Your task to perform on an android device: turn off improve location accuracy Image 0: 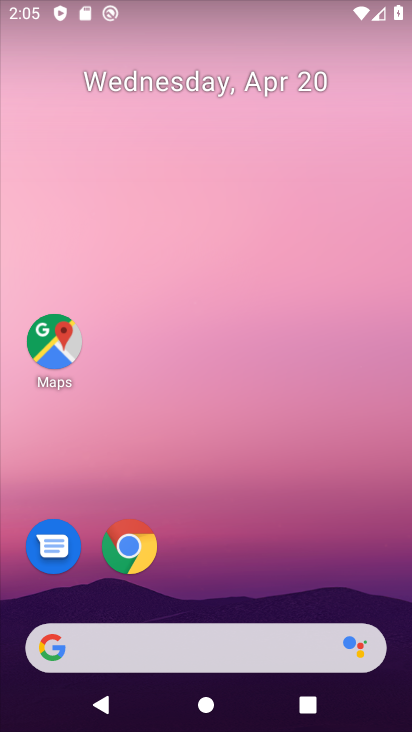
Step 0: drag from (215, 465) to (364, 44)
Your task to perform on an android device: turn off improve location accuracy Image 1: 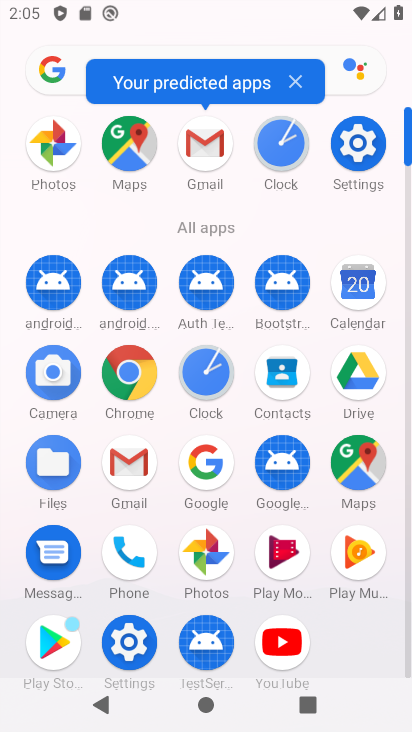
Step 1: click (122, 662)
Your task to perform on an android device: turn off improve location accuracy Image 2: 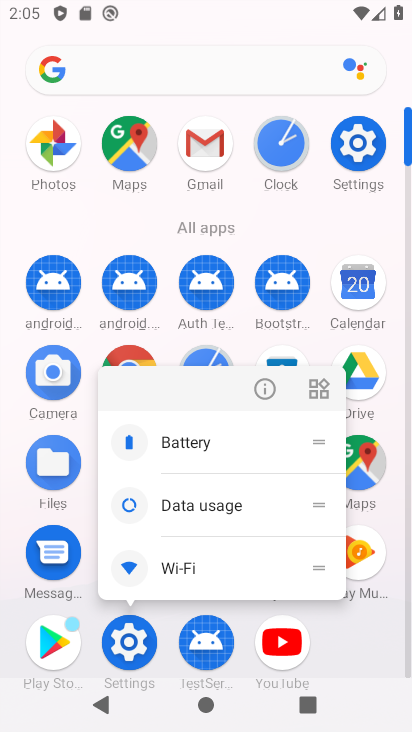
Step 2: click (134, 642)
Your task to perform on an android device: turn off improve location accuracy Image 3: 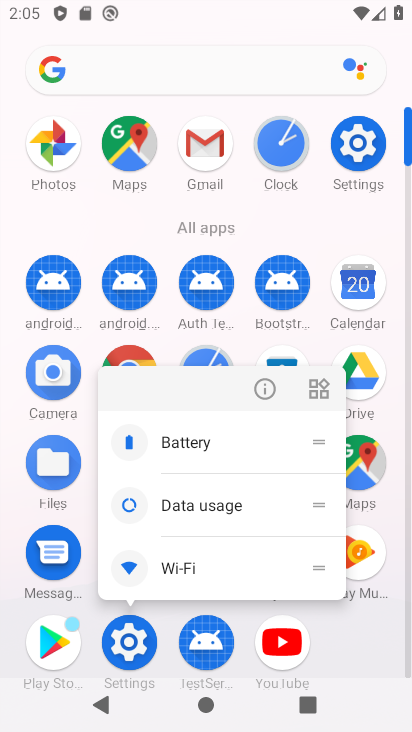
Step 3: click (134, 642)
Your task to perform on an android device: turn off improve location accuracy Image 4: 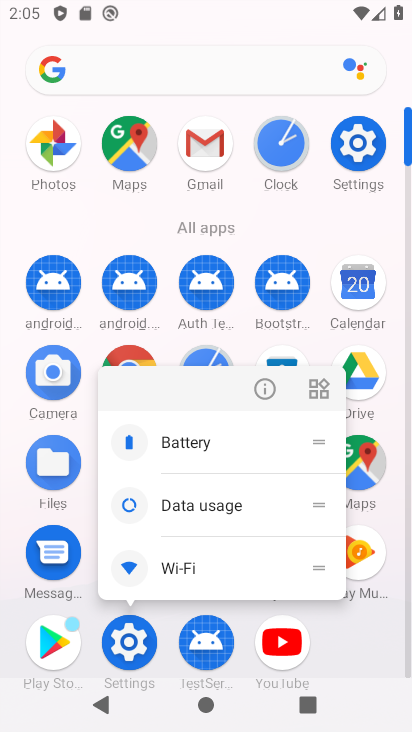
Step 4: click (134, 642)
Your task to perform on an android device: turn off improve location accuracy Image 5: 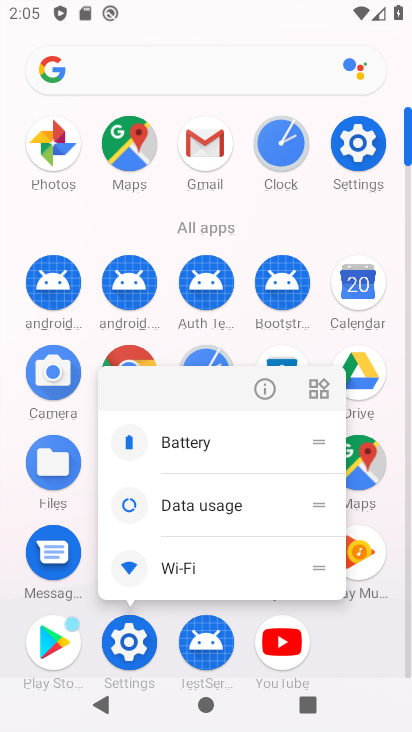
Step 5: click (138, 642)
Your task to perform on an android device: turn off improve location accuracy Image 6: 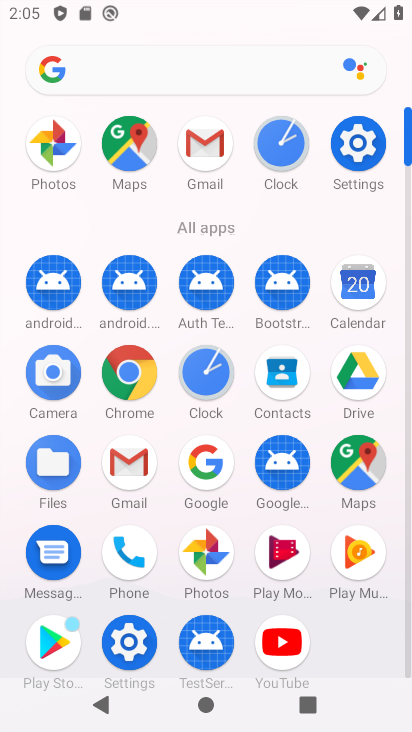
Step 6: click (126, 646)
Your task to perform on an android device: turn off improve location accuracy Image 7: 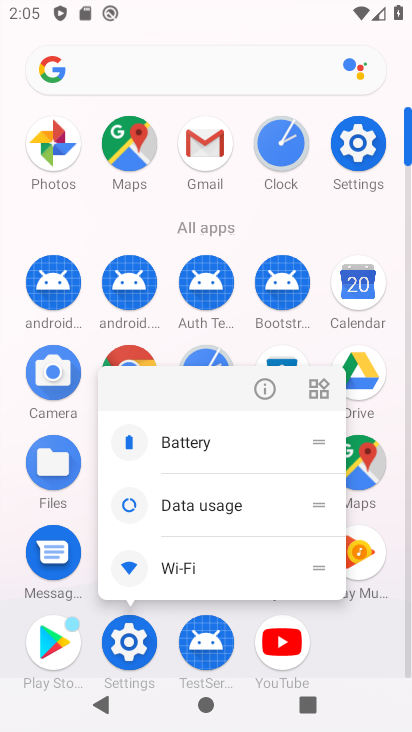
Step 7: click (126, 646)
Your task to perform on an android device: turn off improve location accuracy Image 8: 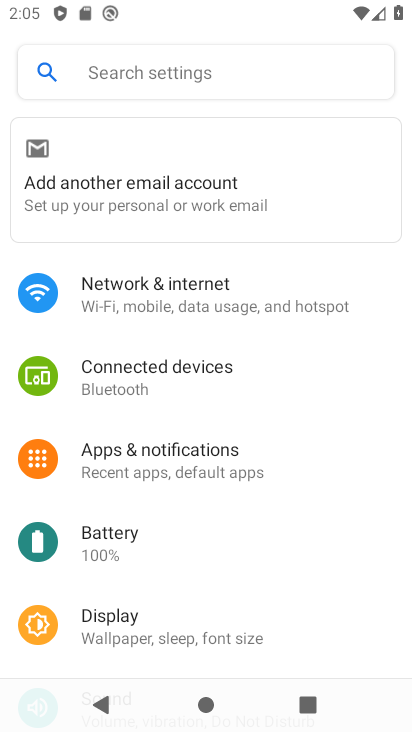
Step 8: drag from (190, 589) to (367, 83)
Your task to perform on an android device: turn off improve location accuracy Image 9: 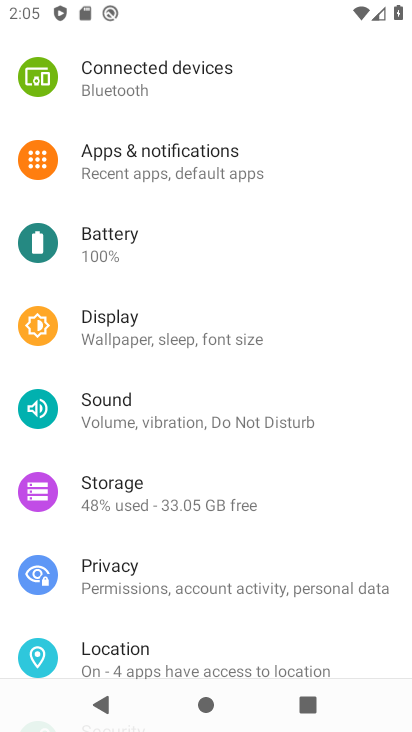
Step 9: drag from (186, 565) to (293, 303)
Your task to perform on an android device: turn off improve location accuracy Image 10: 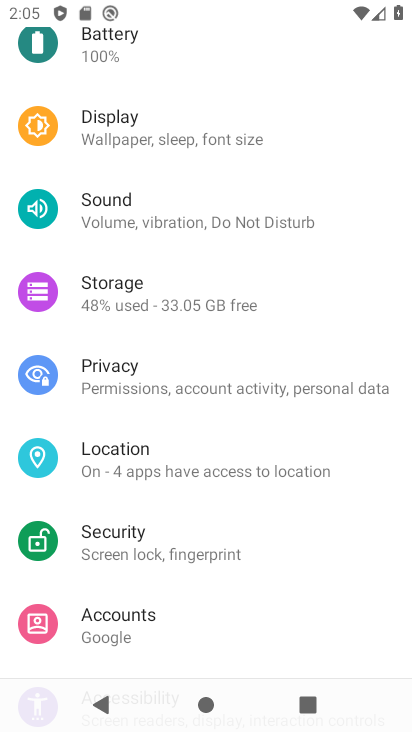
Step 10: drag from (132, 640) to (242, 339)
Your task to perform on an android device: turn off improve location accuracy Image 11: 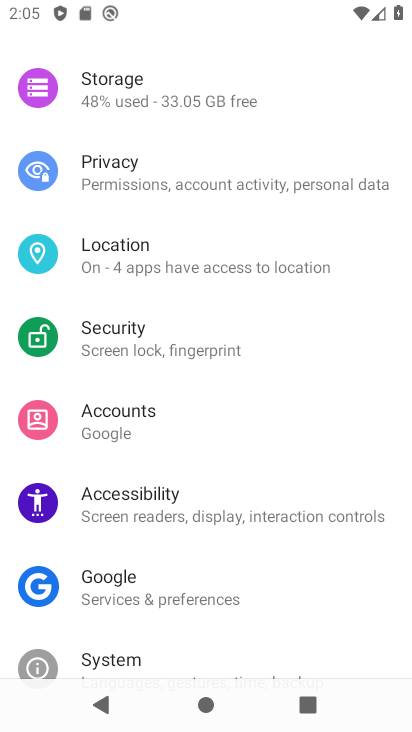
Step 11: click (188, 248)
Your task to perform on an android device: turn off improve location accuracy Image 12: 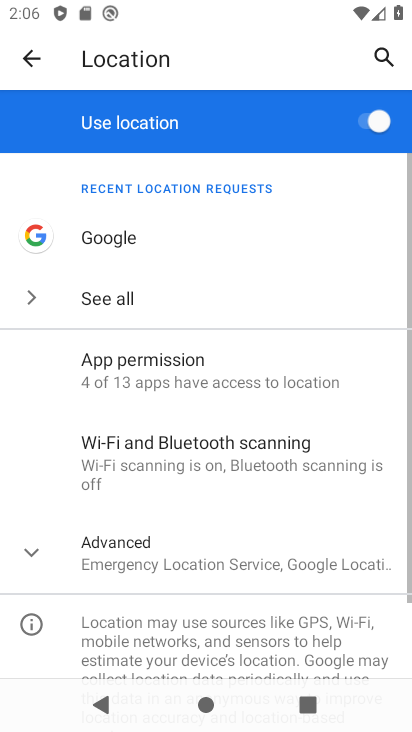
Step 12: click (201, 553)
Your task to perform on an android device: turn off improve location accuracy Image 13: 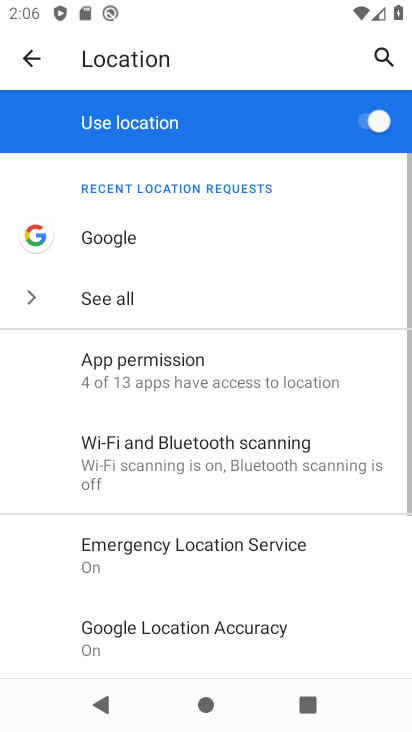
Step 13: drag from (188, 674) to (342, 296)
Your task to perform on an android device: turn off improve location accuracy Image 14: 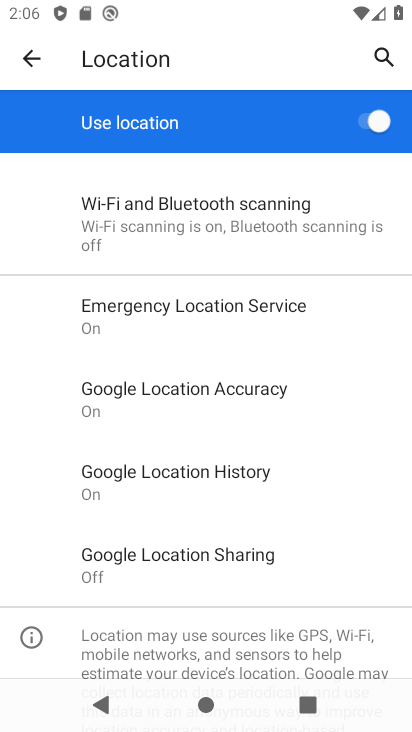
Step 14: click (239, 384)
Your task to perform on an android device: turn off improve location accuracy Image 15: 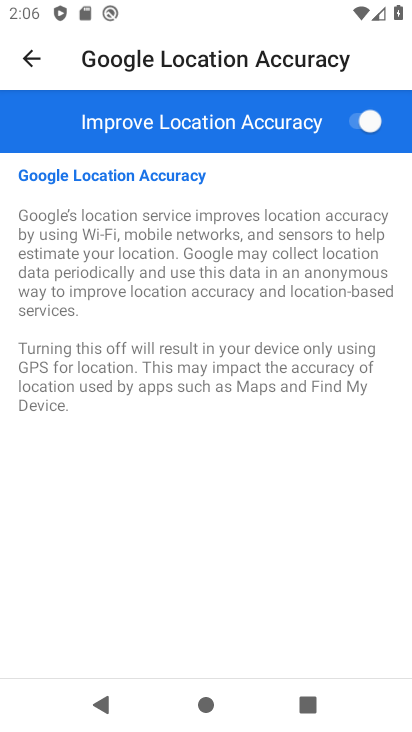
Step 15: click (353, 120)
Your task to perform on an android device: turn off improve location accuracy Image 16: 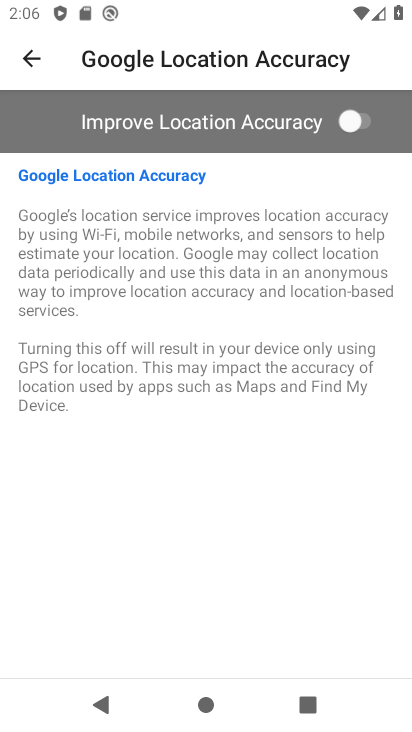
Step 16: task complete